Your task to perform on an android device: Open settings on Google Maps Image 0: 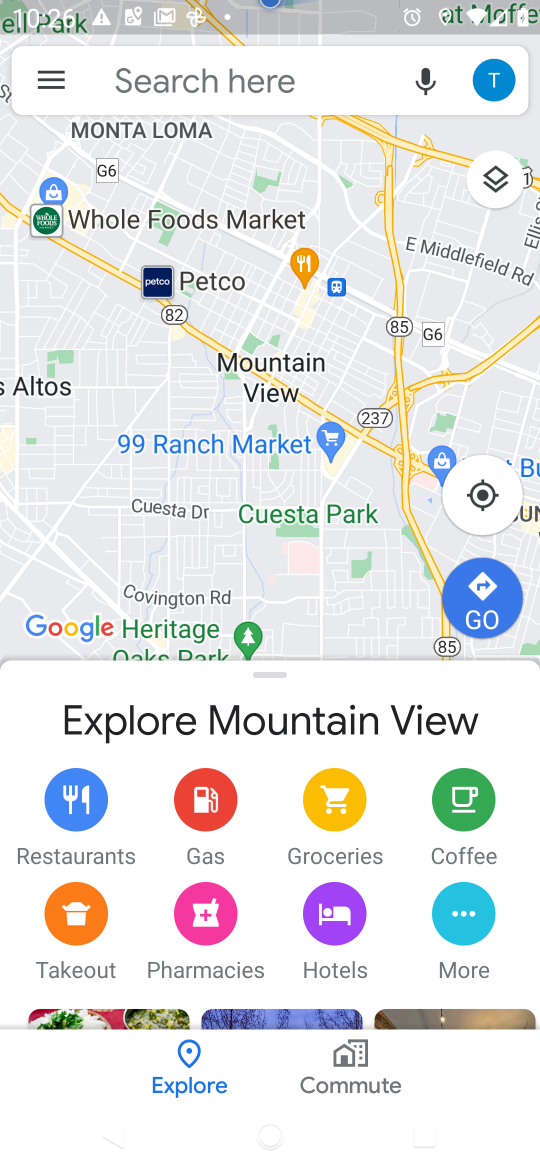
Step 0: press home button
Your task to perform on an android device: Open settings on Google Maps Image 1: 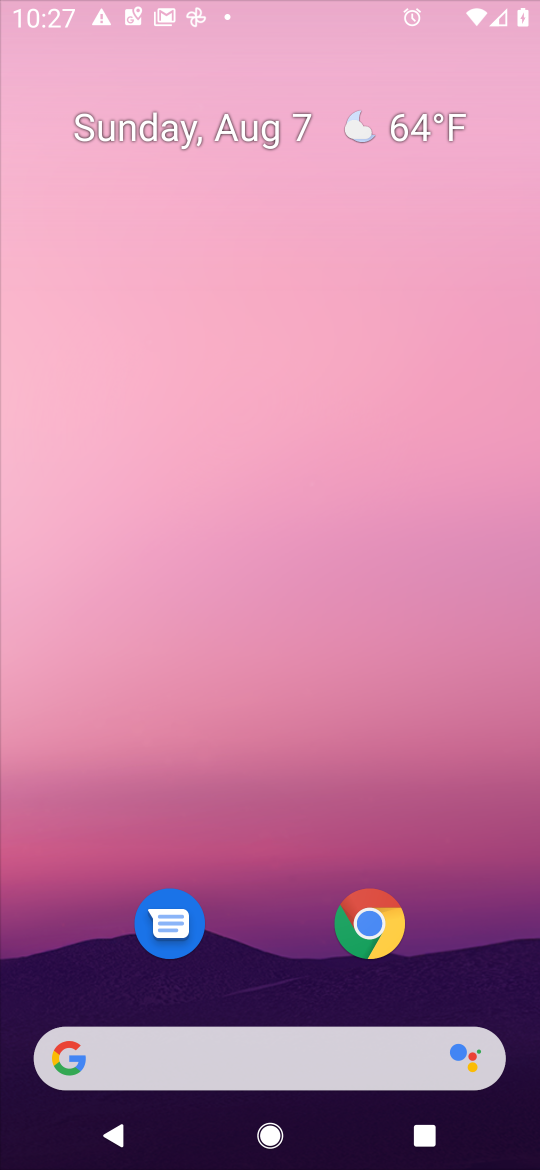
Step 1: drag from (479, 847) to (242, 0)
Your task to perform on an android device: Open settings on Google Maps Image 2: 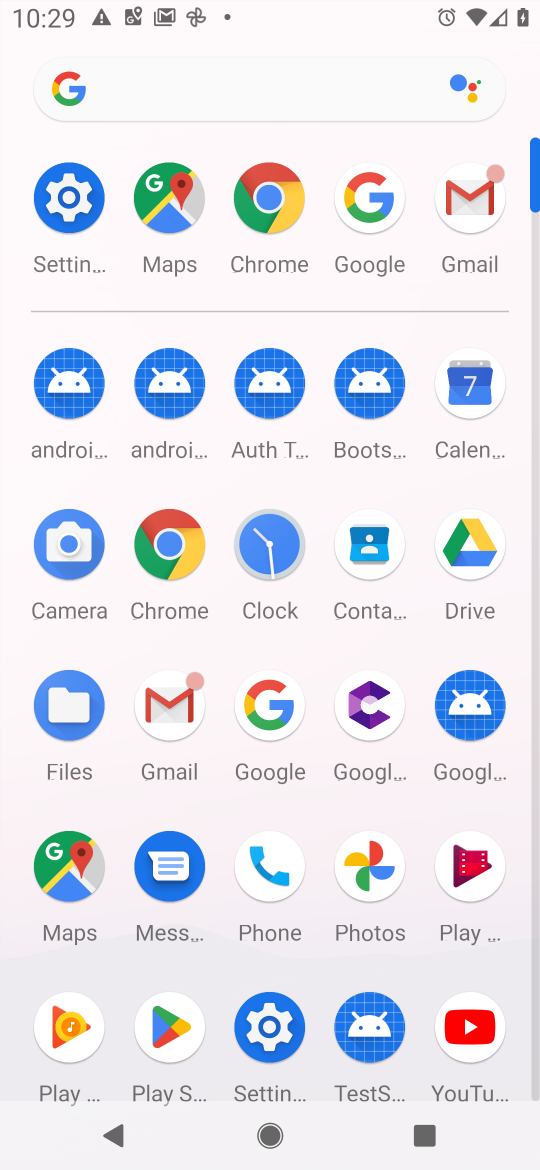
Step 2: click (68, 896)
Your task to perform on an android device: Open settings on Google Maps Image 3: 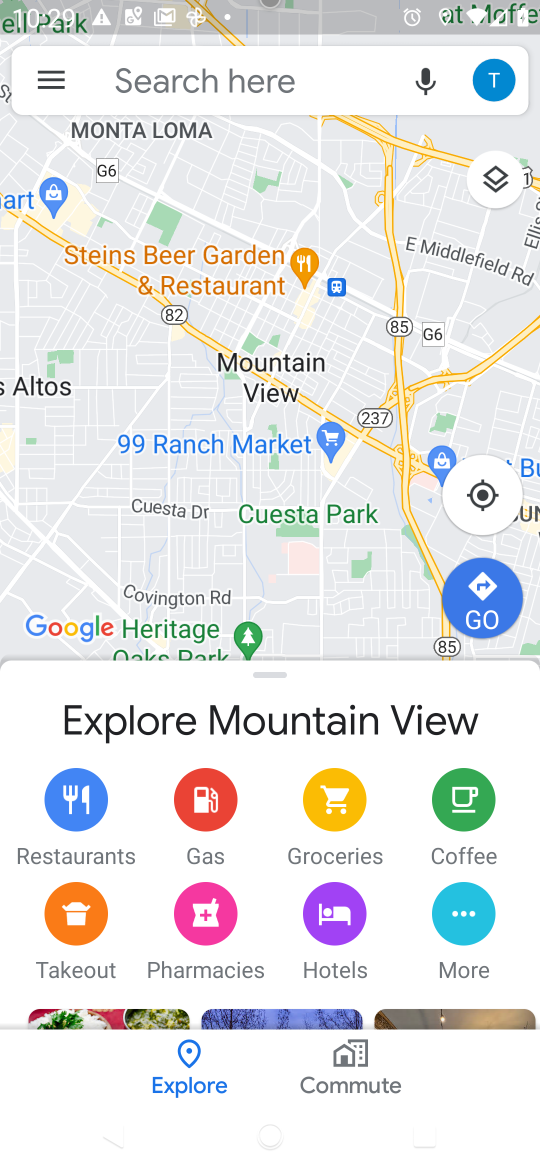
Step 3: click (495, 80)
Your task to perform on an android device: Open settings on Google Maps Image 4: 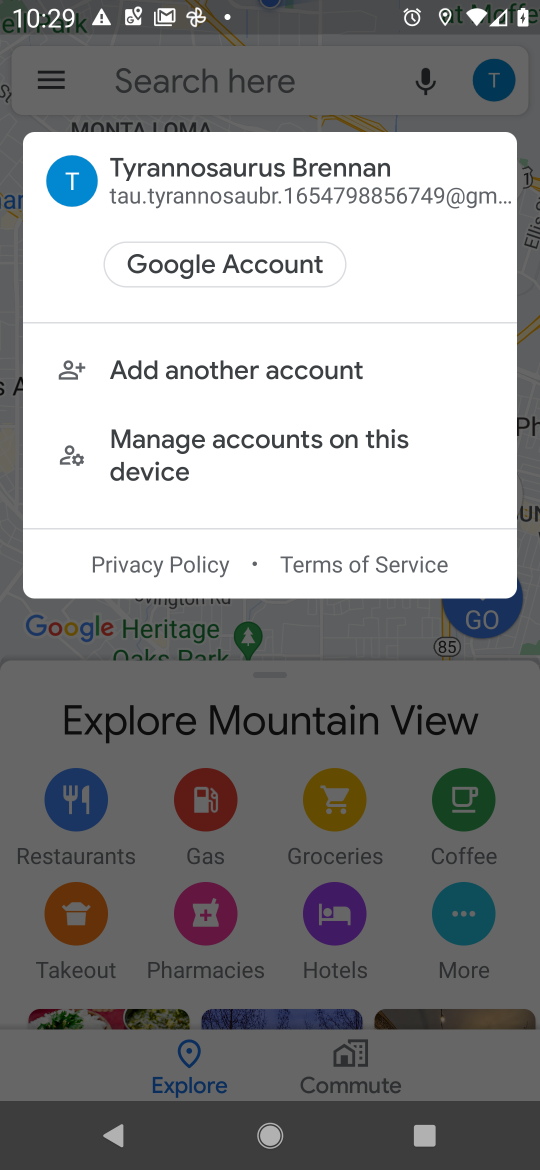
Step 4: press back button
Your task to perform on an android device: Open settings on Google Maps Image 5: 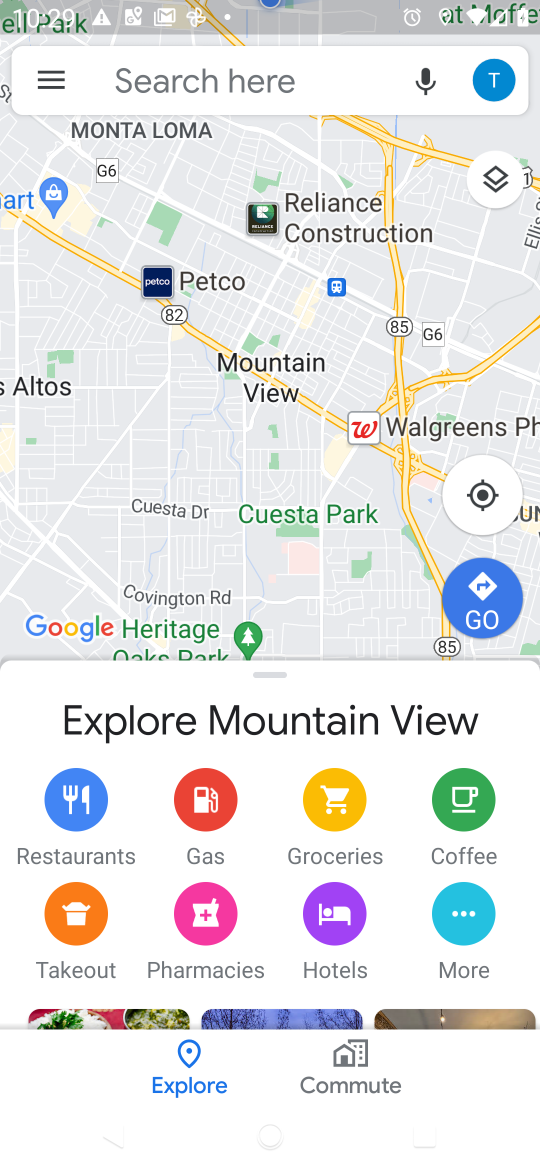
Step 5: click (35, 72)
Your task to perform on an android device: Open settings on Google Maps Image 6: 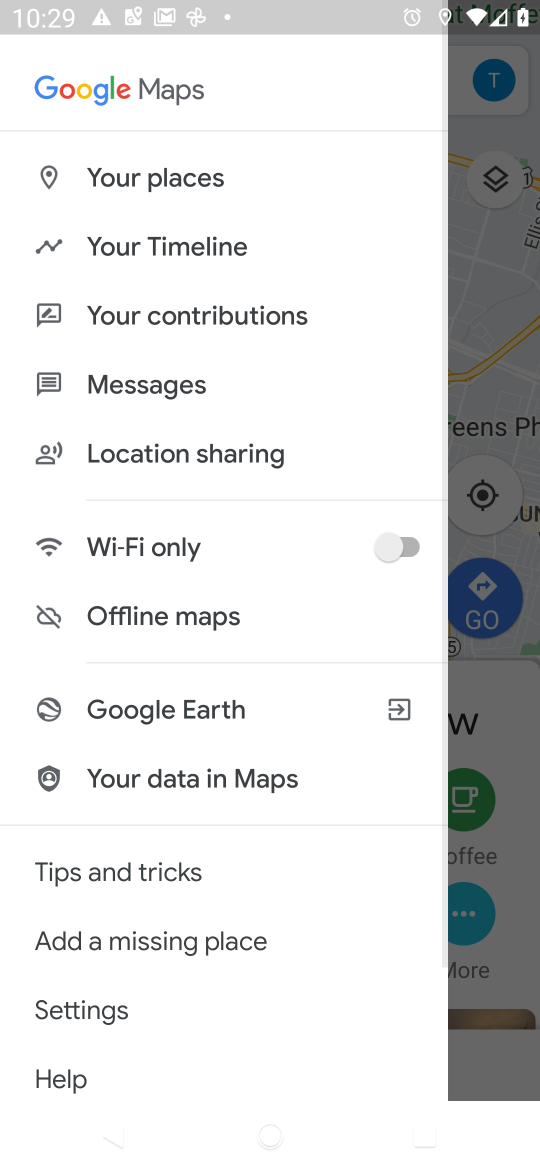
Step 6: click (77, 1007)
Your task to perform on an android device: Open settings on Google Maps Image 7: 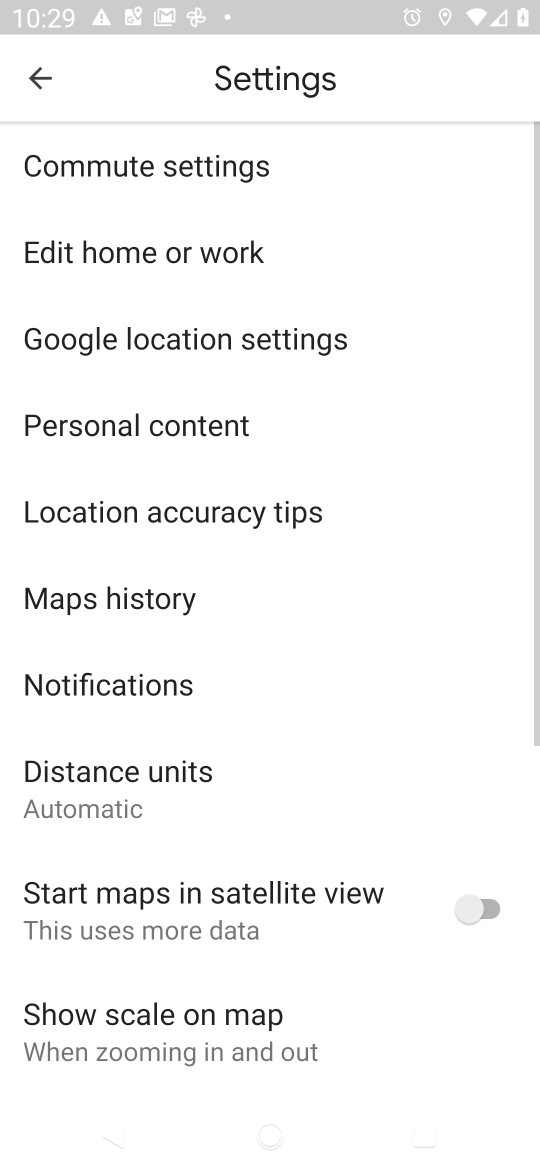
Step 7: task complete